Your task to perform on an android device: toggle location history Image 0: 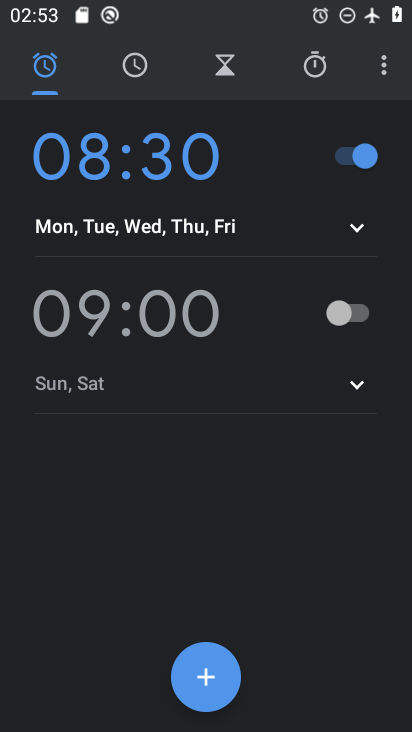
Step 0: press home button
Your task to perform on an android device: toggle location history Image 1: 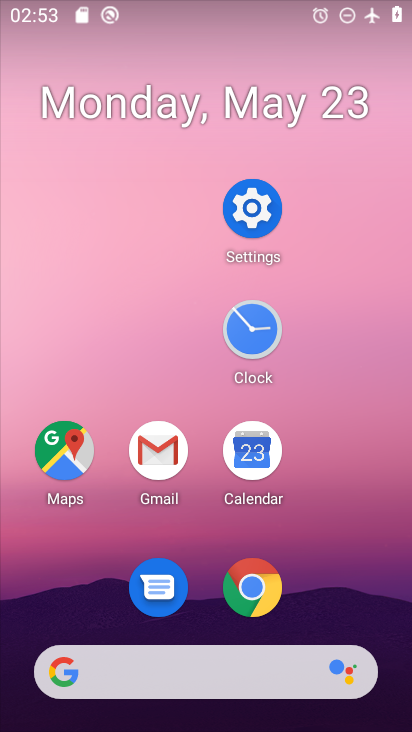
Step 1: click (258, 220)
Your task to perform on an android device: toggle location history Image 2: 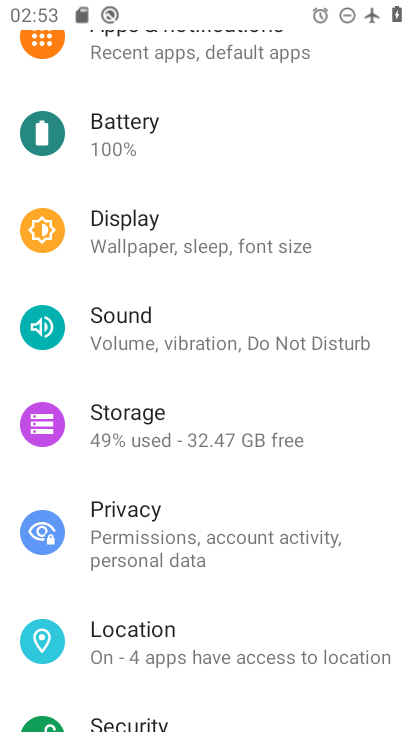
Step 2: click (191, 613)
Your task to perform on an android device: toggle location history Image 3: 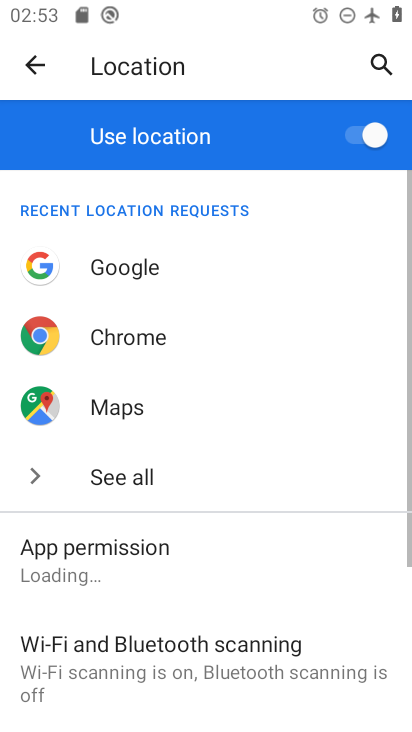
Step 3: task complete